Your task to perform on an android device: turn on data saver in the chrome app Image 0: 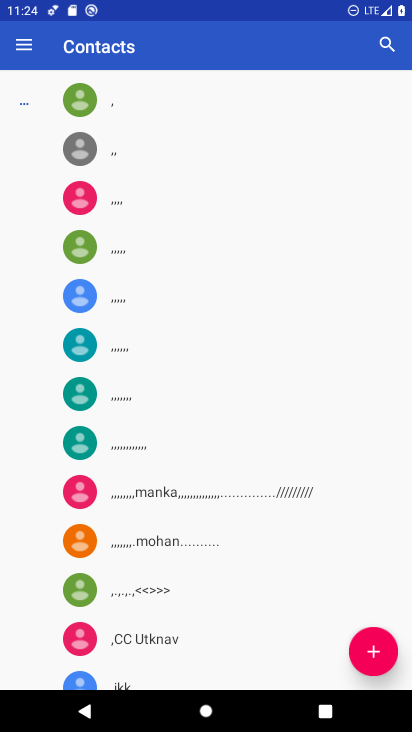
Step 0: press home button
Your task to perform on an android device: turn on data saver in the chrome app Image 1: 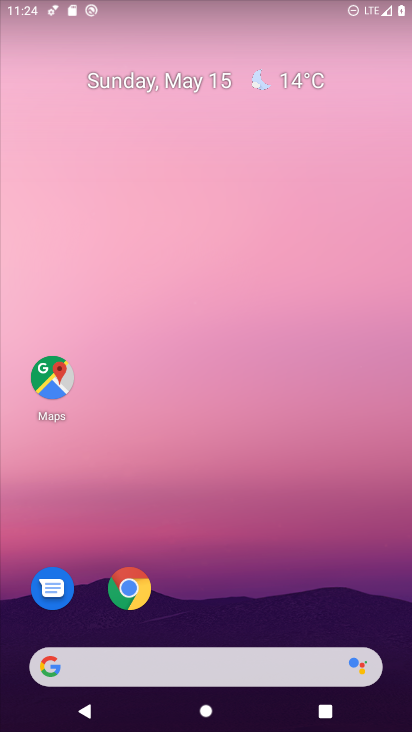
Step 1: click (133, 598)
Your task to perform on an android device: turn on data saver in the chrome app Image 2: 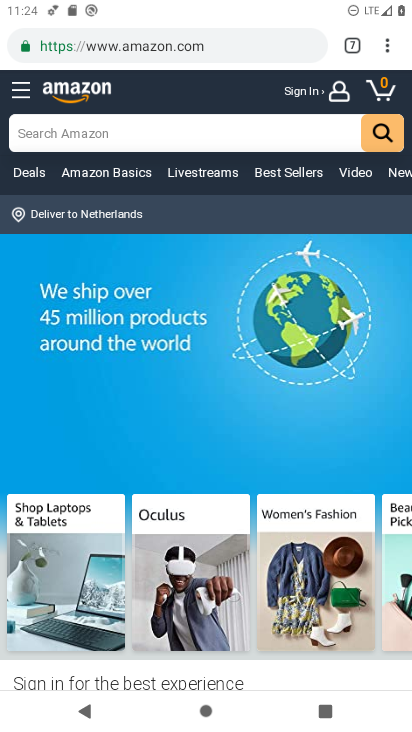
Step 2: click (390, 42)
Your task to perform on an android device: turn on data saver in the chrome app Image 3: 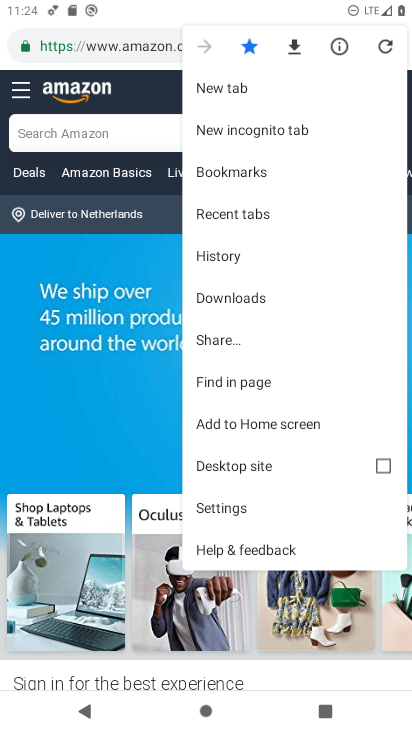
Step 3: click (226, 502)
Your task to perform on an android device: turn on data saver in the chrome app Image 4: 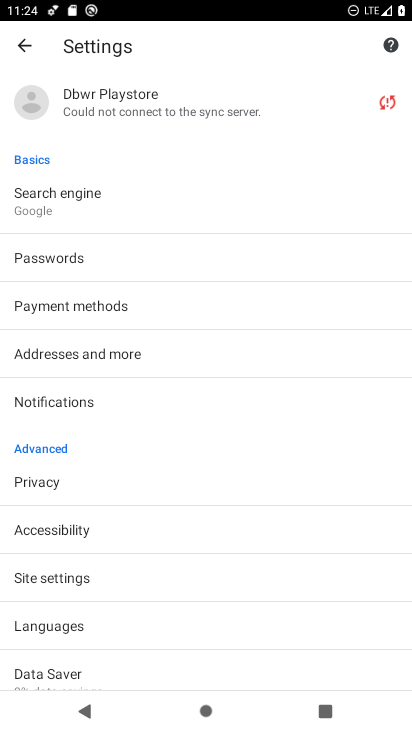
Step 4: drag from (98, 587) to (140, 401)
Your task to perform on an android device: turn on data saver in the chrome app Image 5: 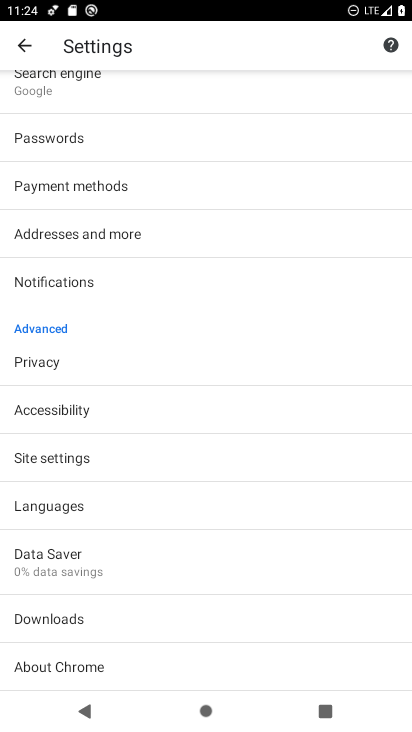
Step 5: click (67, 574)
Your task to perform on an android device: turn on data saver in the chrome app Image 6: 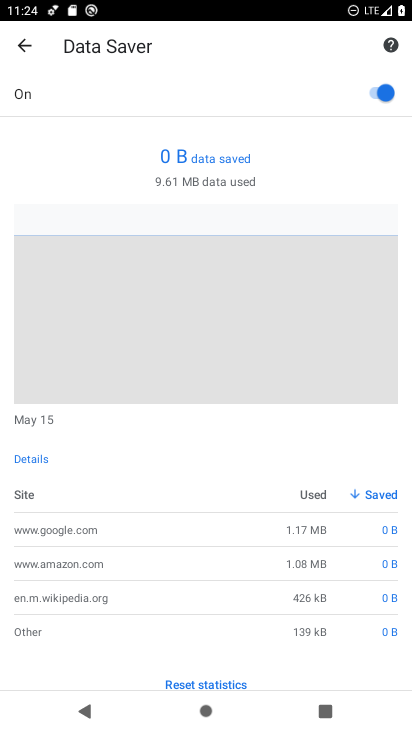
Step 6: task complete